Your task to perform on an android device: Search for Mexican restaurants on Maps Image 0: 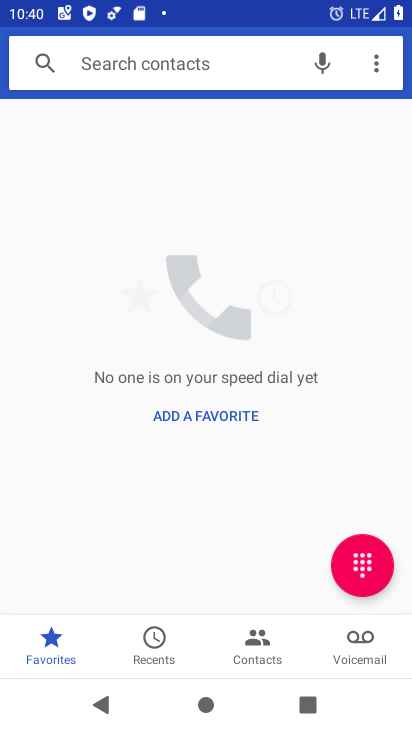
Step 0: press home button
Your task to perform on an android device: Search for Mexican restaurants on Maps Image 1: 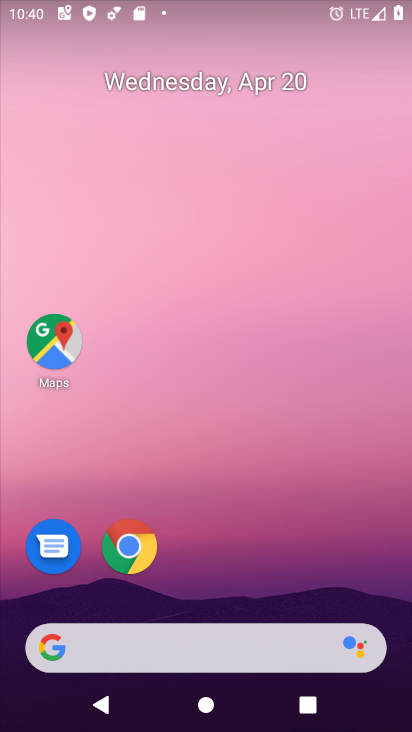
Step 1: click (48, 353)
Your task to perform on an android device: Search for Mexican restaurants on Maps Image 2: 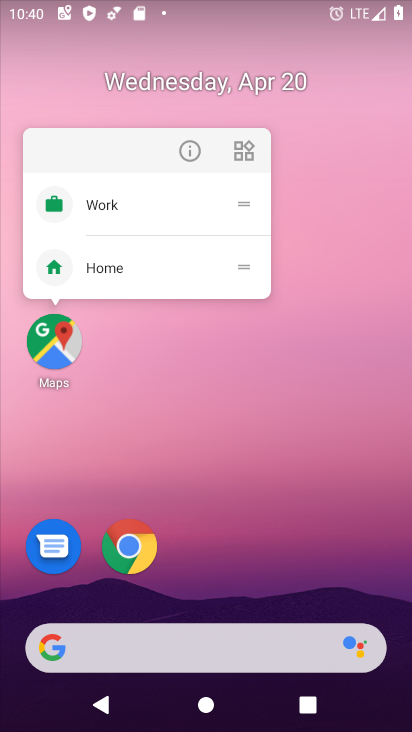
Step 2: click (59, 326)
Your task to perform on an android device: Search for Mexican restaurants on Maps Image 3: 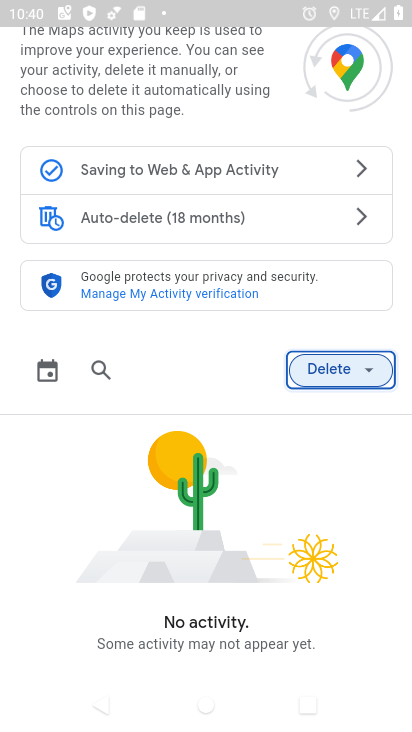
Step 3: press back button
Your task to perform on an android device: Search for Mexican restaurants on Maps Image 4: 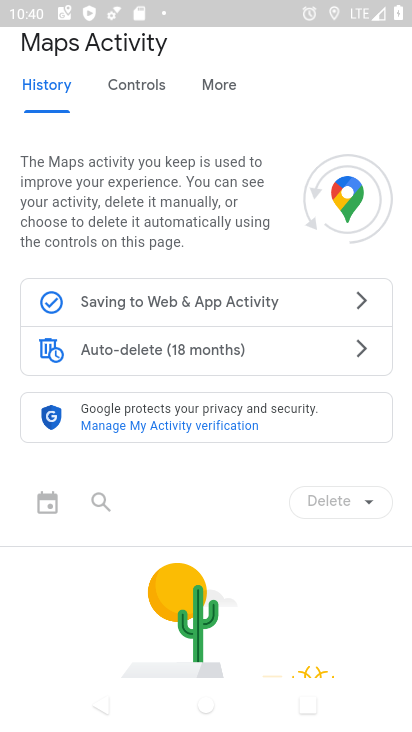
Step 4: press back button
Your task to perform on an android device: Search for Mexican restaurants on Maps Image 5: 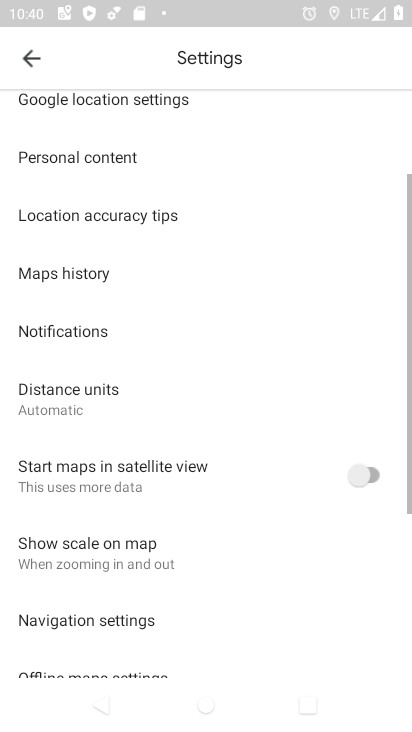
Step 5: press back button
Your task to perform on an android device: Search for Mexican restaurants on Maps Image 6: 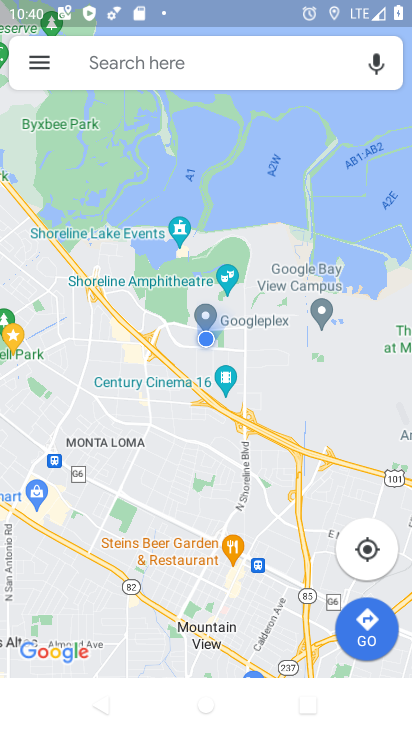
Step 6: click (110, 61)
Your task to perform on an android device: Search for Mexican restaurants on Maps Image 7: 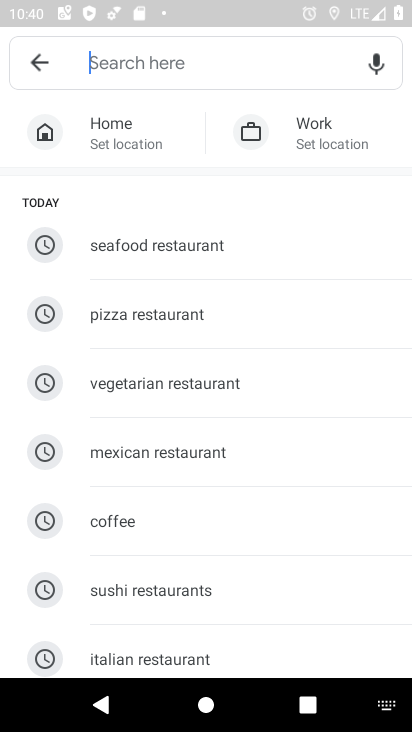
Step 7: click (166, 451)
Your task to perform on an android device: Search for Mexican restaurants on Maps Image 8: 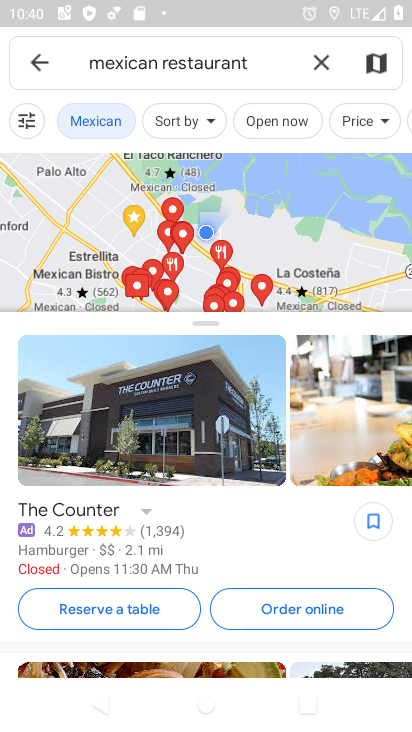
Step 8: task complete